Your task to perform on an android device: move an email to a new category in the gmail app Image 0: 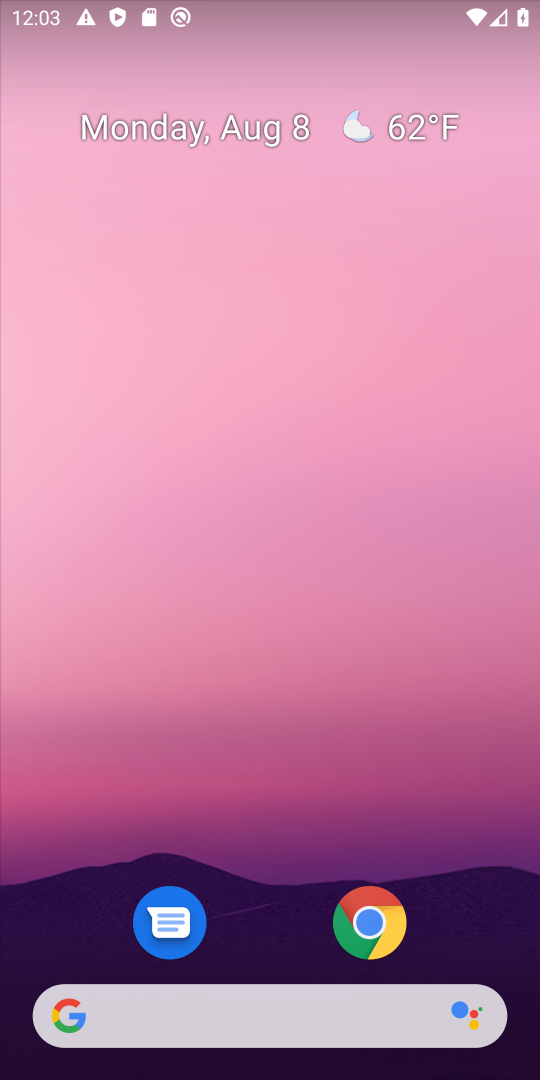
Step 0: drag from (444, 866) to (376, 291)
Your task to perform on an android device: move an email to a new category in the gmail app Image 1: 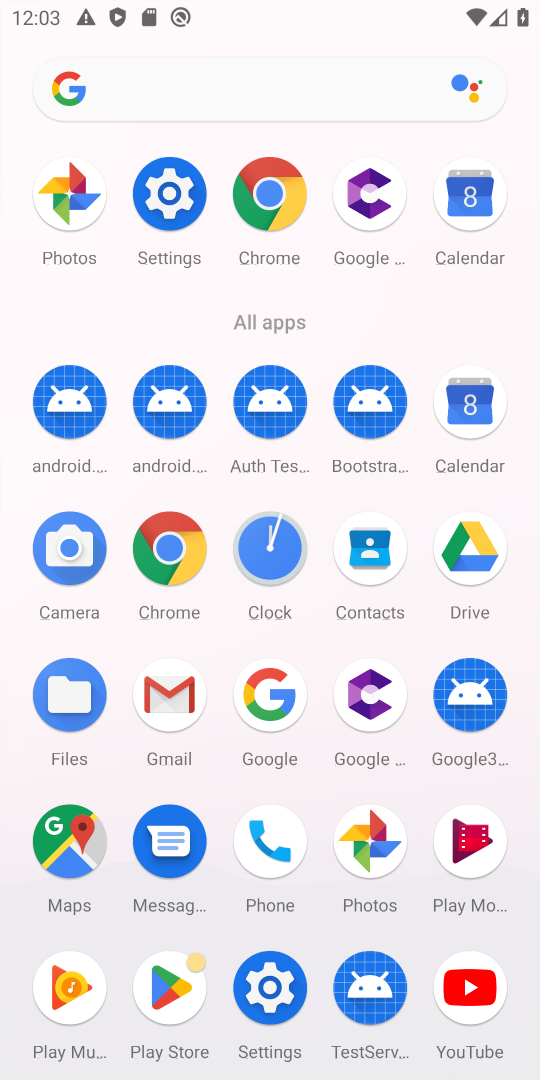
Step 1: click (168, 680)
Your task to perform on an android device: move an email to a new category in the gmail app Image 2: 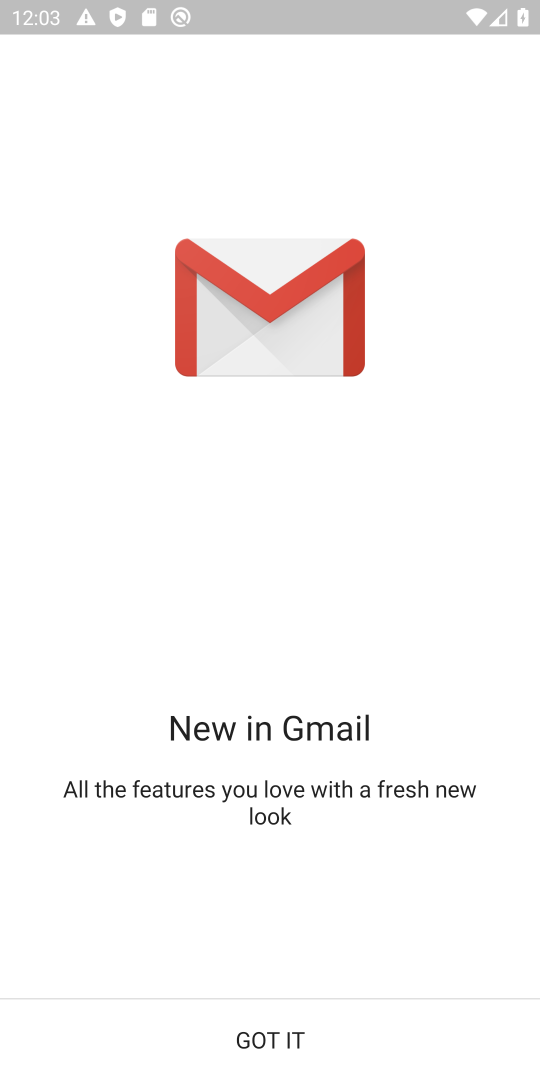
Step 2: click (272, 1016)
Your task to perform on an android device: move an email to a new category in the gmail app Image 3: 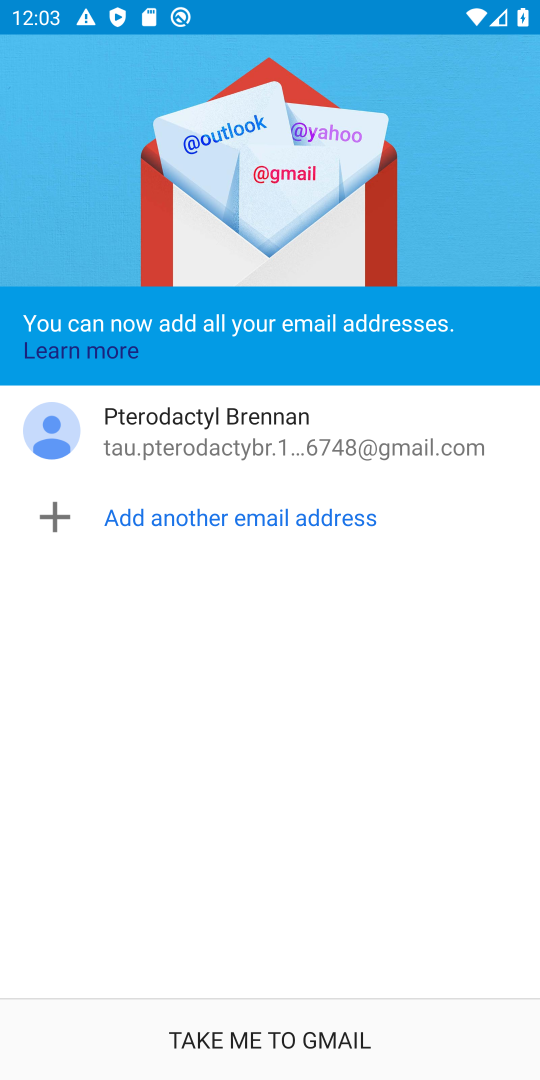
Step 3: click (266, 1036)
Your task to perform on an android device: move an email to a new category in the gmail app Image 4: 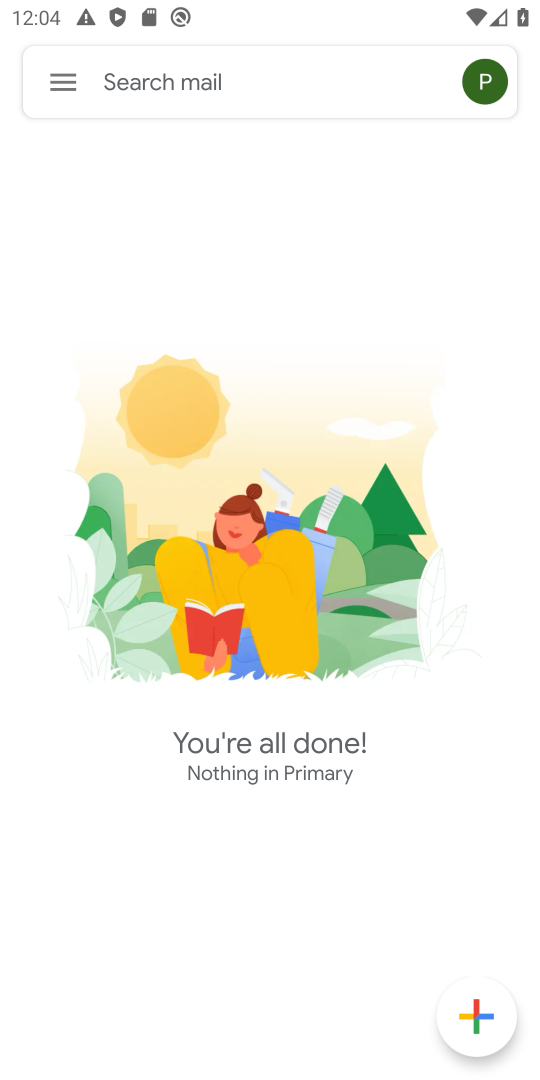
Step 4: click (70, 93)
Your task to perform on an android device: move an email to a new category in the gmail app Image 5: 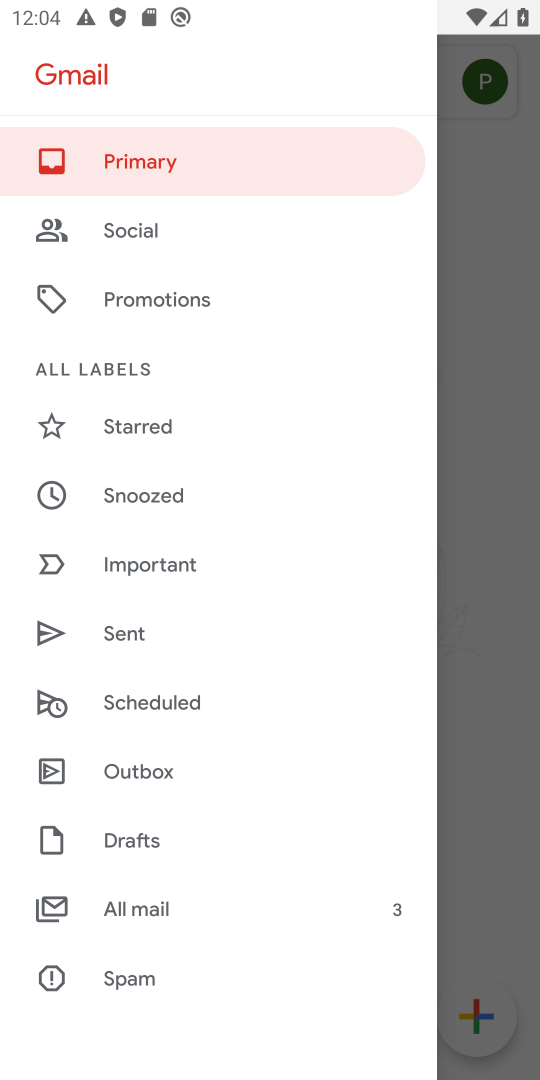
Step 5: click (165, 905)
Your task to perform on an android device: move an email to a new category in the gmail app Image 6: 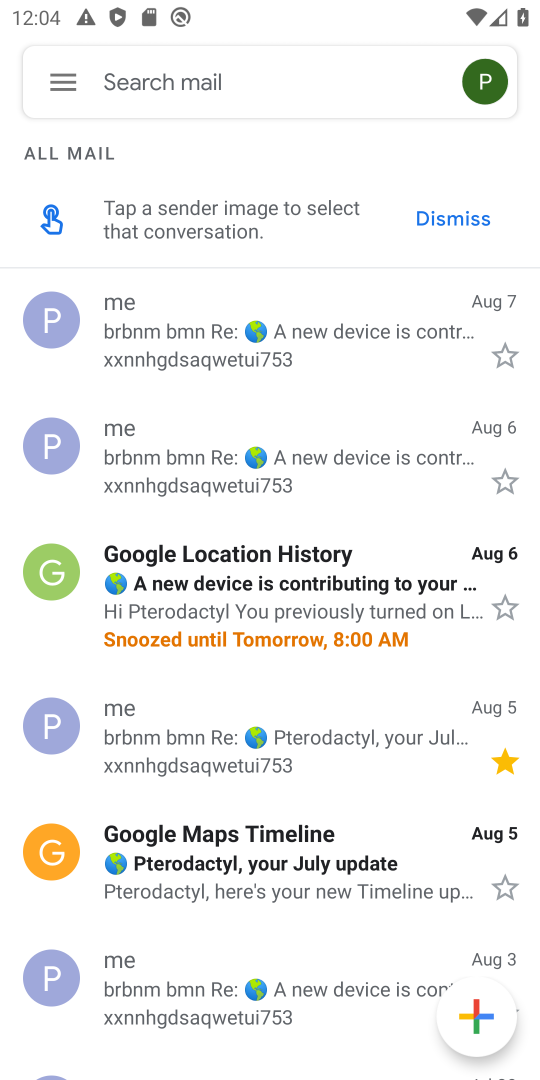
Step 6: click (40, 436)
Your task to perform on an android device: move an email to a new category in the gmail app Image 7: 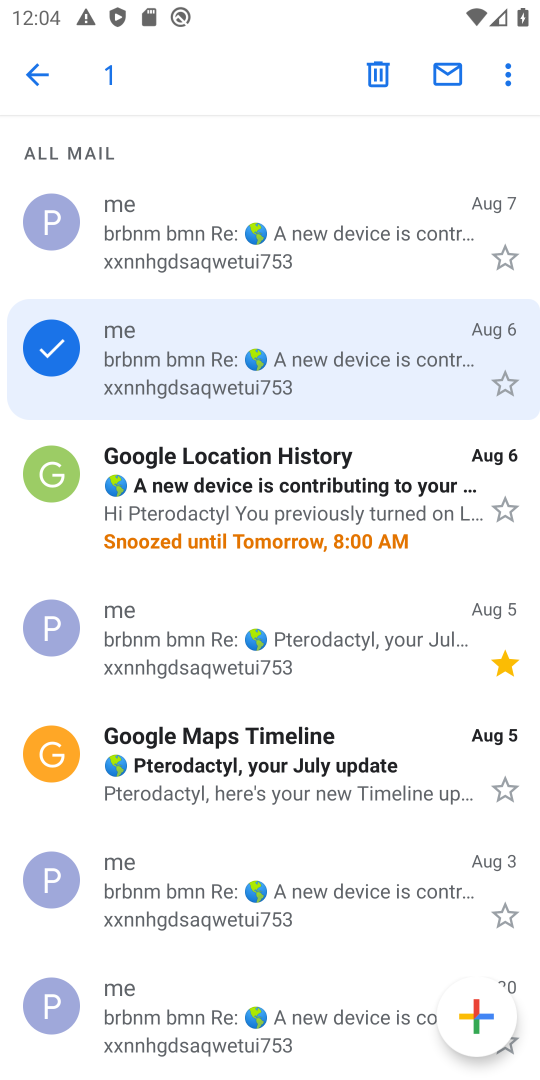
Step 7: click (512, 74)
Your task to perform on an android device: move an email to a new category in the gmail app Image 8: 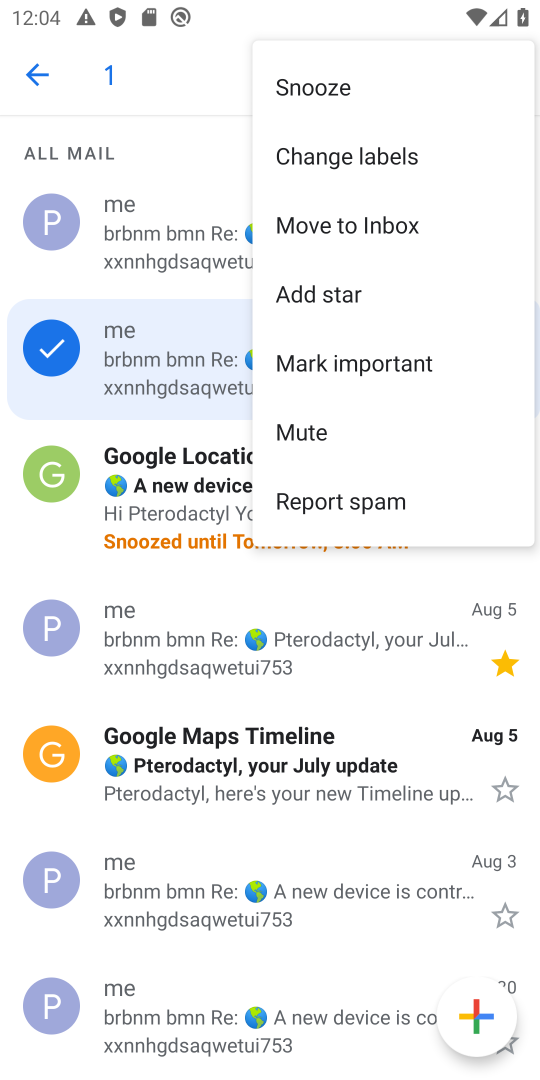
Step 8: click (357, 231)
Your task to perform on an android device: move an email to a new category in the gmail app Image 9: 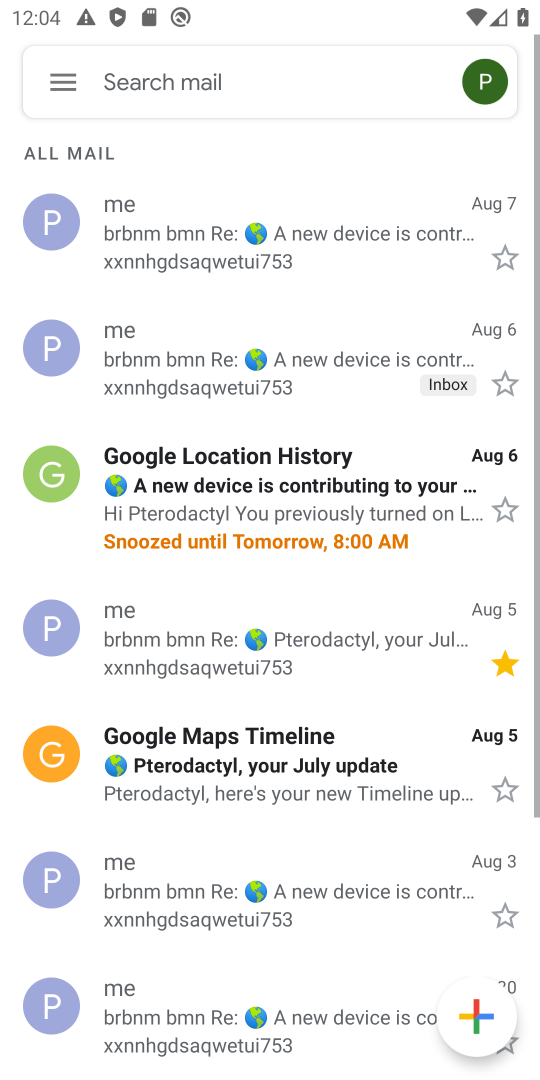
Step 9: task complete